Your task to perform on an android device: turn off notifications settings in the gmail app Image 0: 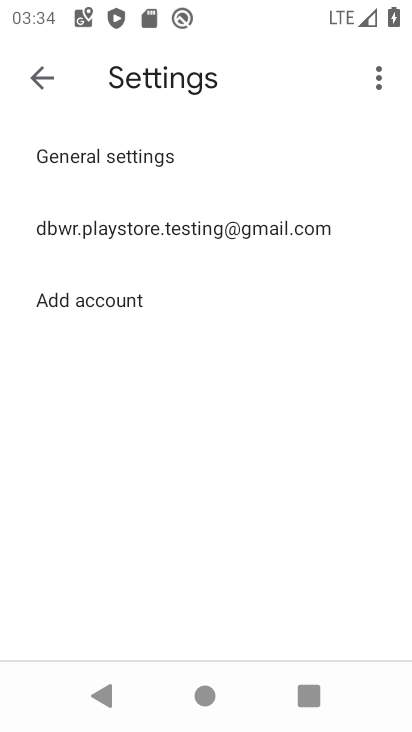
Step 0: press home button
Your task to perform on an android device: turn off notifications settings in the gmail app Image 1: 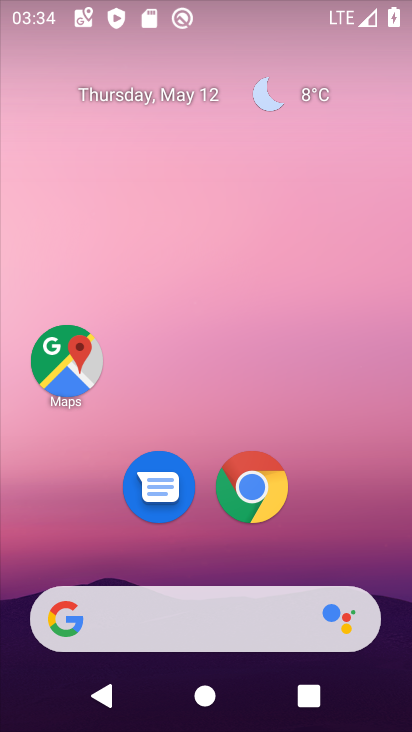
Step 1: drag from (304, 535) to (326, 130)
Your task to perform on an android device: turn off notifications settings in the gmail app Image 2: 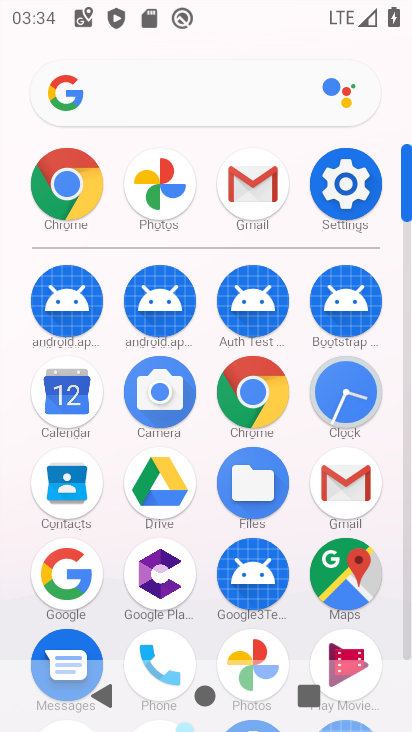
Step 2: click (256, 209)
Your task to perform on an android device: turn off notifications settings in the gmail app Image 3: 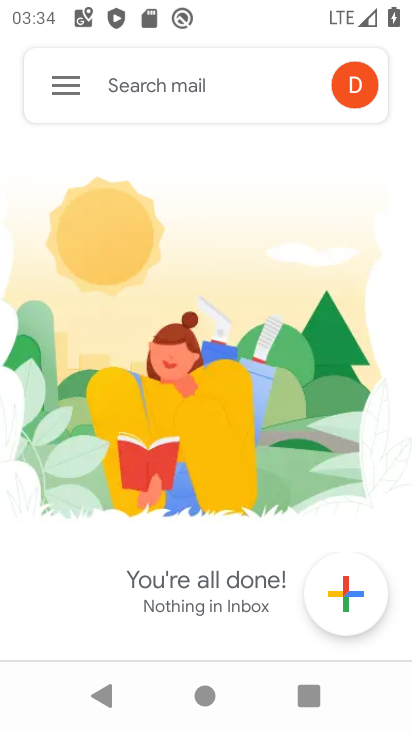
Step 3: click (73, 85)
Your task to perform on an android device: turn off notifications settings in the gmail app Image 4: 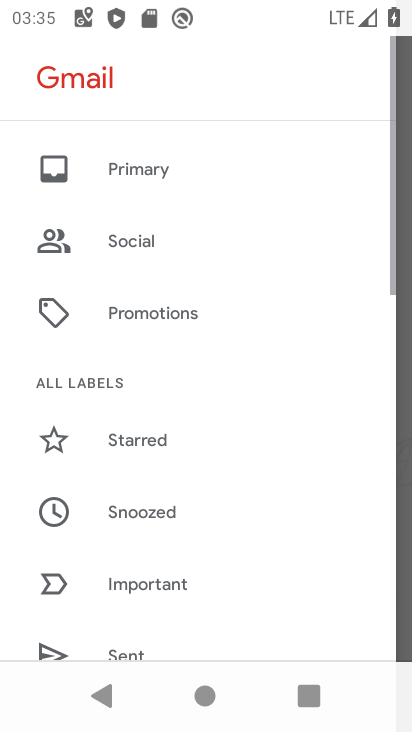
Step 4: drag from (249, 593) to (310, 99)
Your task to perform on an android device: turn off notifications settings in the gmail app Image 5: 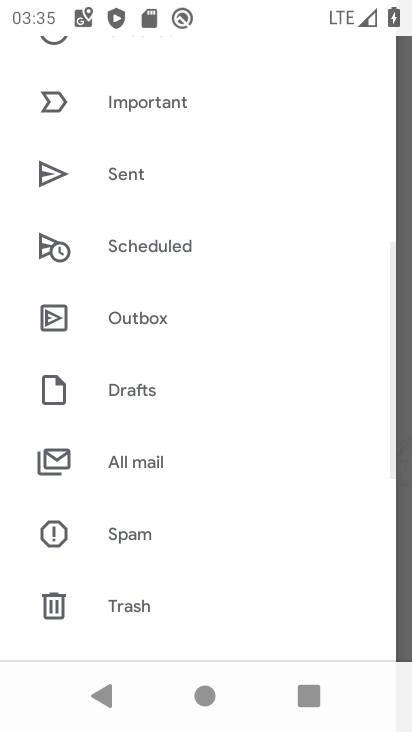
Step 5: drag from (254, 548) to (386, 115)
Your task to perform on an android device: turn off notifications settings in the gmail app Image 6: 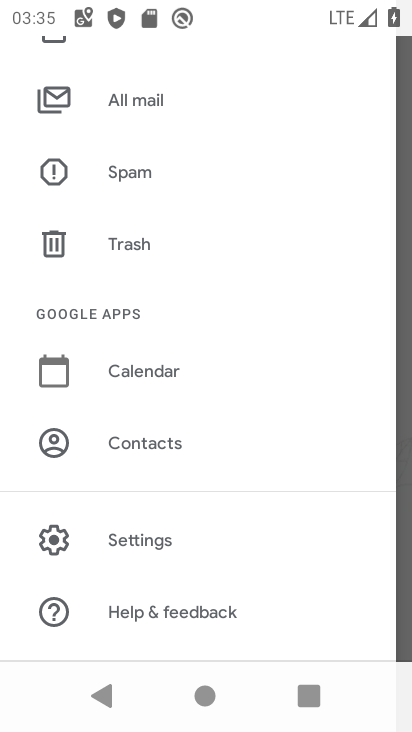
Step 6: click (223, 558)
Your task to perform on an android device: turn off notifications settings in the gmail app Image 7: 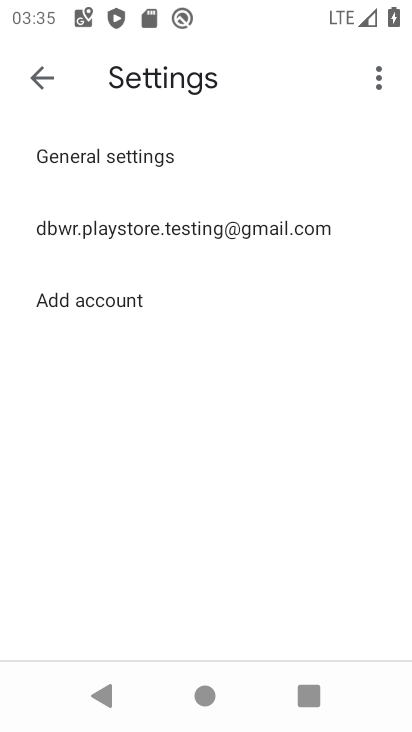
Step 7: click (204, 224)
Your task to perform on an android device: turn off notifications settings in the gmail app Image 8: 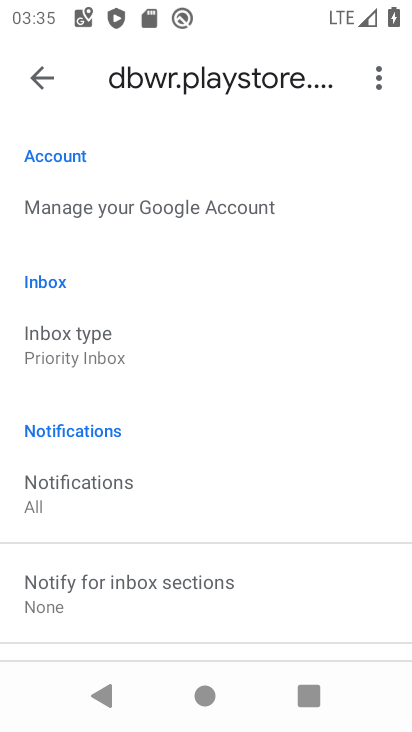
Step 8: drag from (260, 635) to (268, 199)
Your task to perform on an android device: turn off notifications settings in the gmail app Image 9: 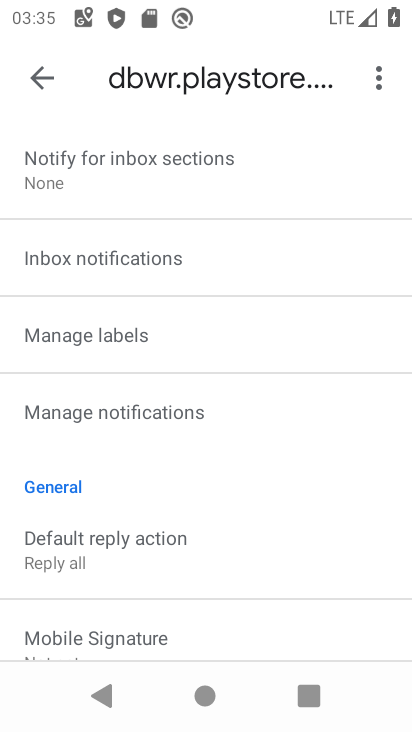
Step 9: drag from (217, 602) to (312, 202)
Your task to perform on an android device: turn off notifications settings in the gmail app Image 10: 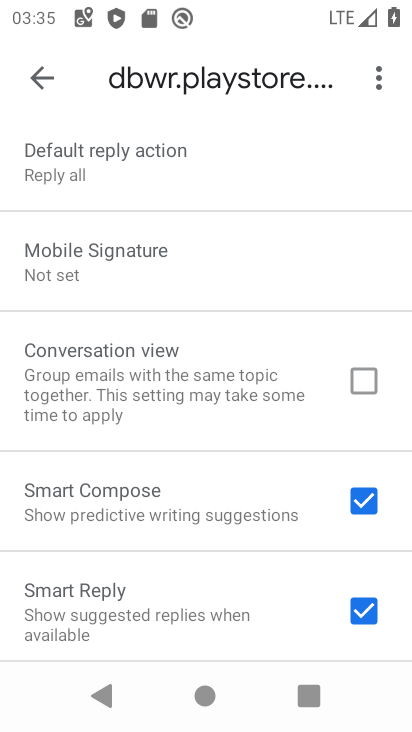
Step 10: drag from (270, 199) to (248, 599)
Your task to perform on an android device: turn off notifications settings in the gmail app Image 11: 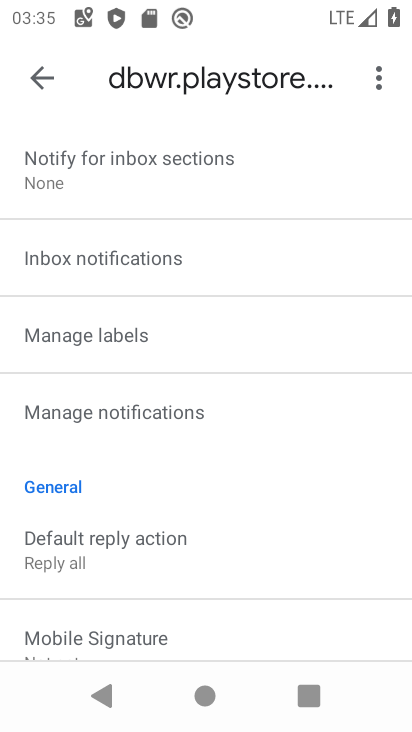
Step 11: click (152, 407)
Your task to perform on an android device: turn off notifications settings in the gmail app Image 12: 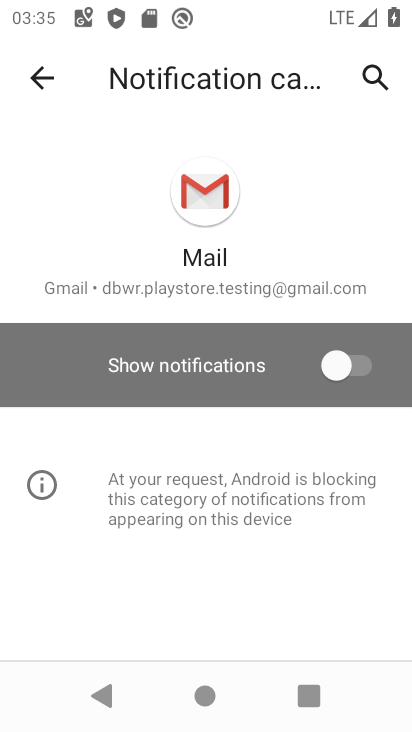
Step 12: task complete